Your task to perform on an android device: open a bookmark in the chrome app Image 0: 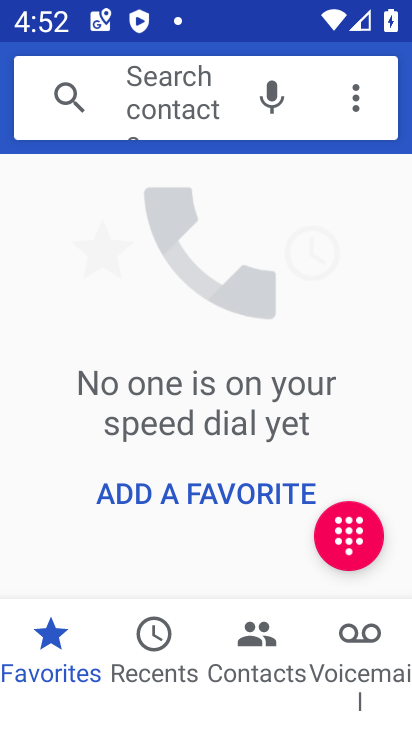
Step 0: press home button
Your task to perform on an android device: open a bookmark in the chrome app Image 1: 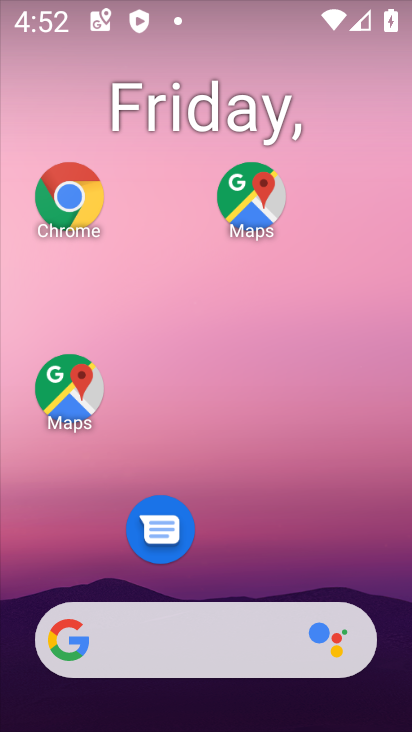
Step 1: click (86, 233)
Your task to perform on an android device: open a bookmark in the chrome app Image 2: 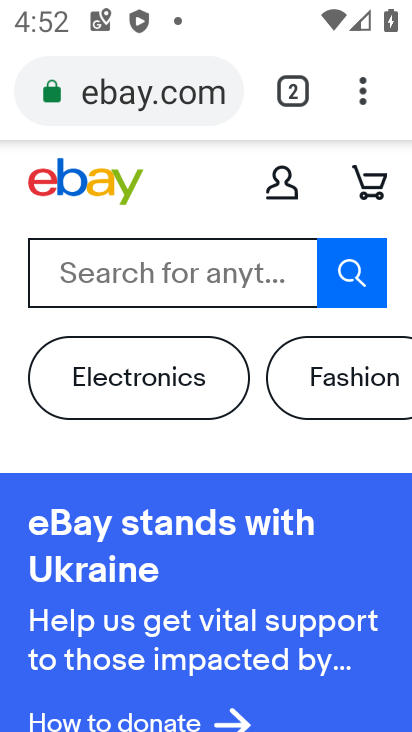
Step 2: click (360, 96)
Your task to perform on an android device: open a bookmark in the chrome app Image 3: 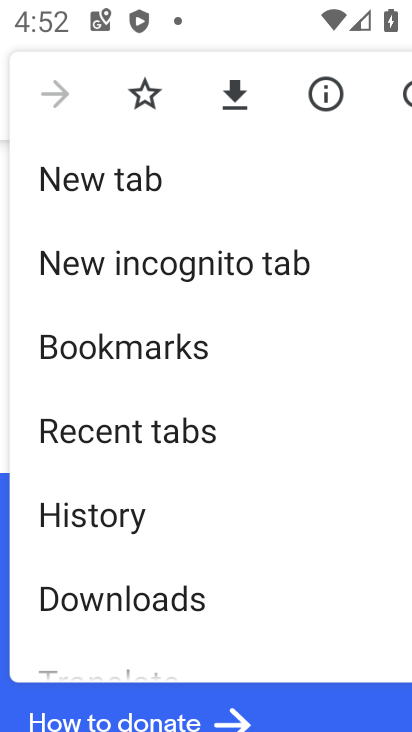
Step 3: click (142, 338)
Your task to perform on an android device: open a bookmark in the chrome app Image 4: 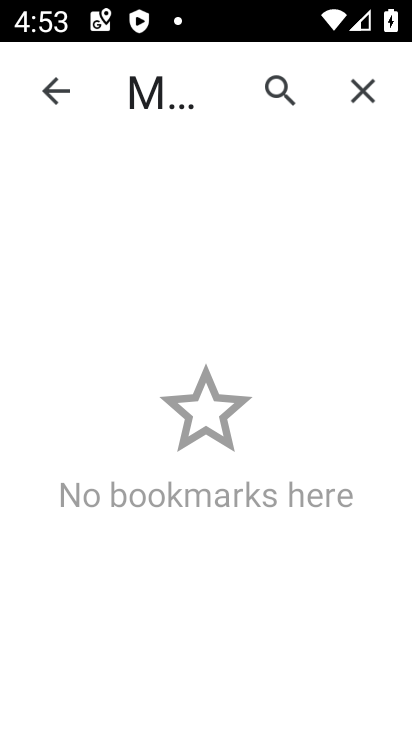
Step 4: task complete